Your task to perform on an android device: Search for the ikea billy bookcase Image 0: 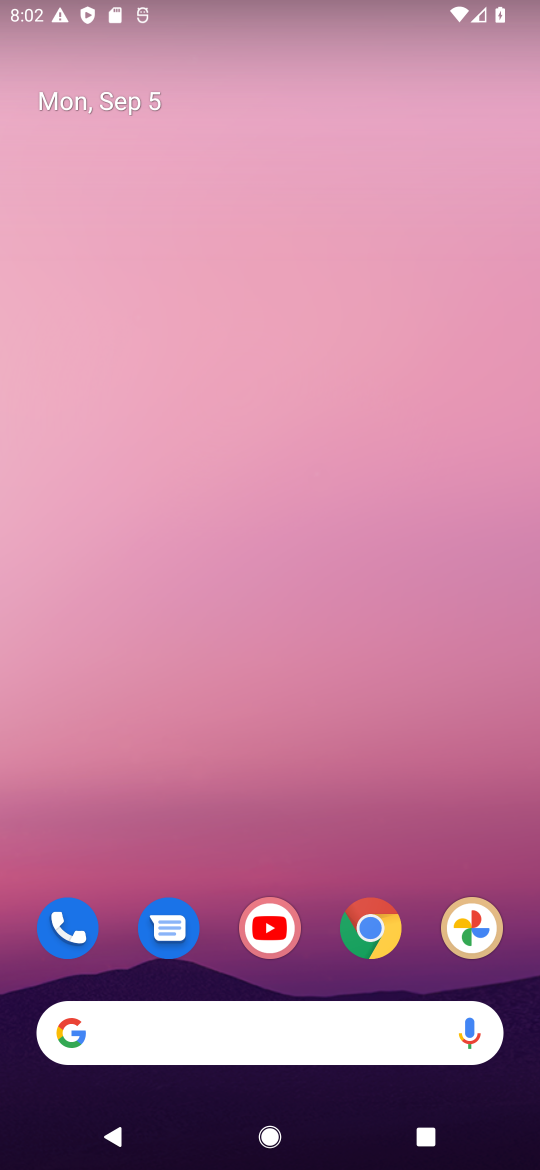
Step 0: click (361, 931)
Your task to perform on an android device: Search for the ikea billy bookcase Image 1: 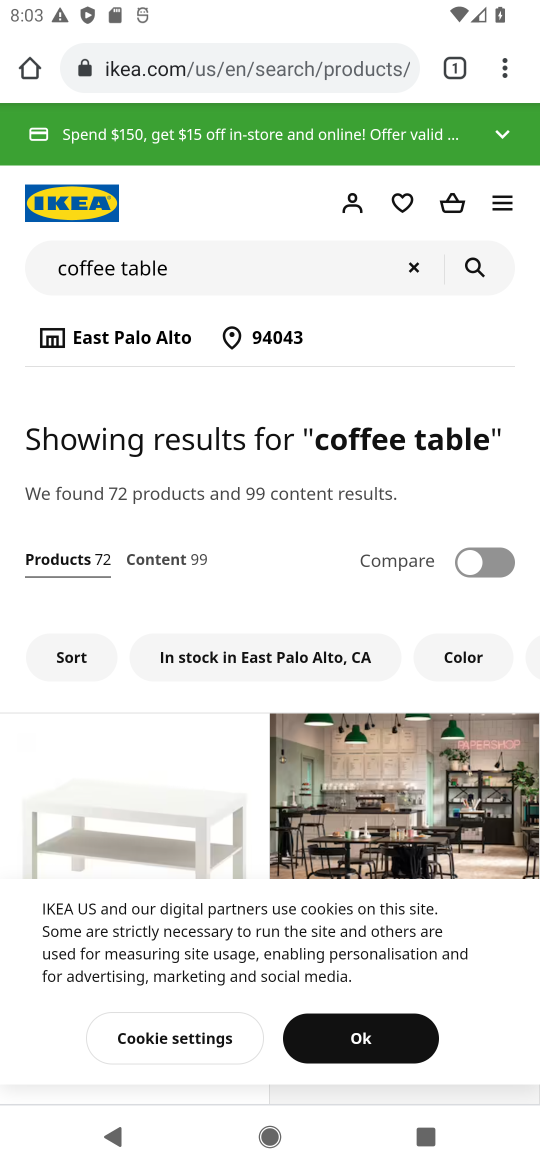
Step 1: click (300, 66)
Your task to perform on an android device: Search for the ikea billy bookcase Image 2: 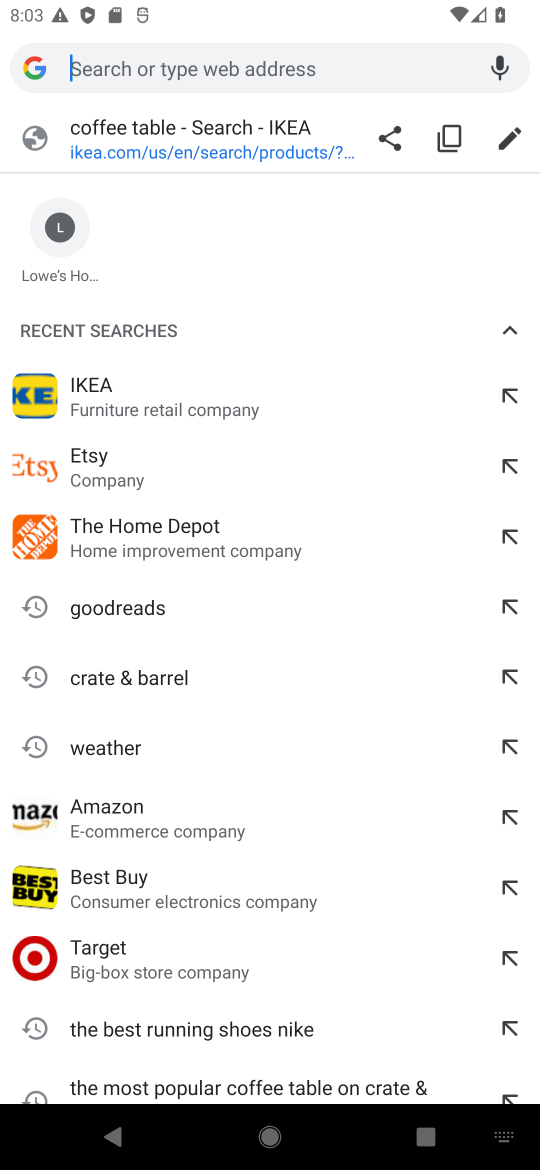
Step 2: type "ikea"
Your task to perform on an android device: Search for the ikea billy bookcase Image 3: 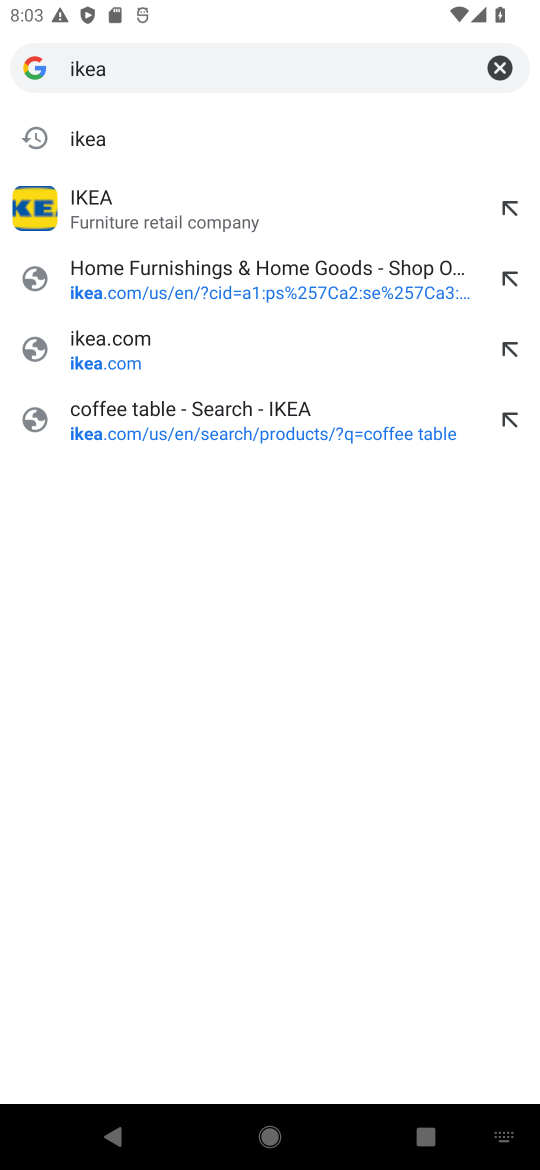
Step 3: click (153, 228)
Your task to perform on an android device: Search for the ikea billy bookcase Image 4: 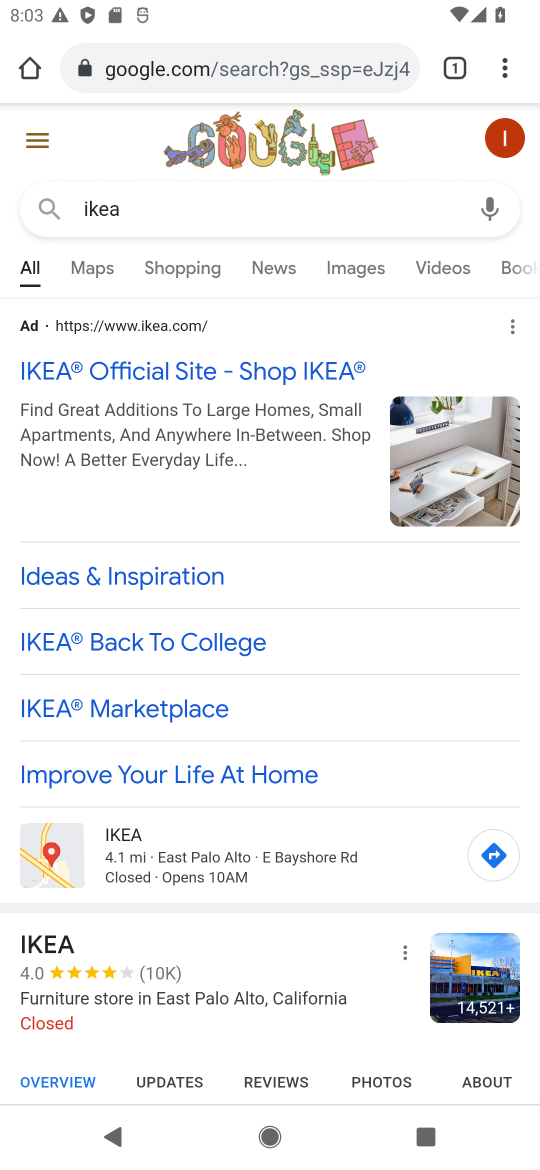
Step 4: click (159, 370)
Your task to perform on an android device: Search for the ikea billy bookcase Image 5: 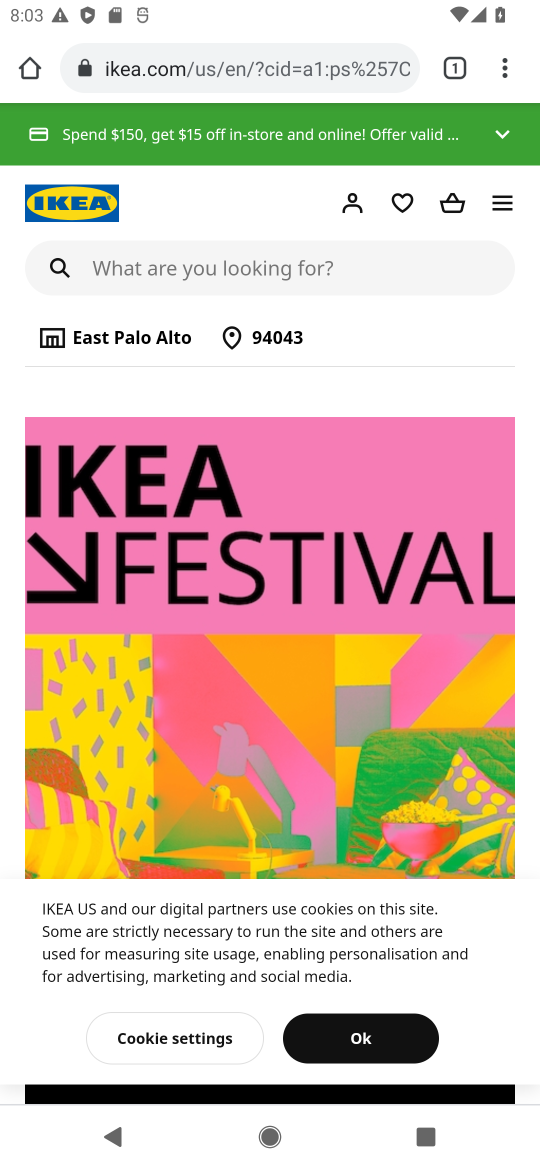
Step 5: click (318, 274)
Your task to perform on an android device: Search for the ikea billy bookcase Image 6: 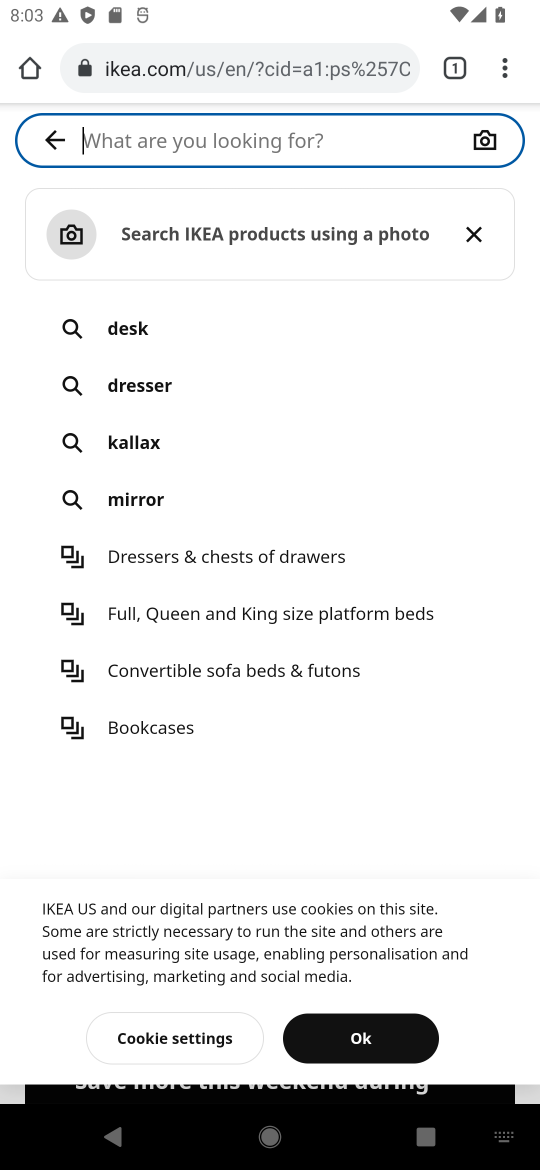
Step 6: type "billy bookcase"
Your task to perform on an android device: Search for the ikea billy bookcase Image 7: 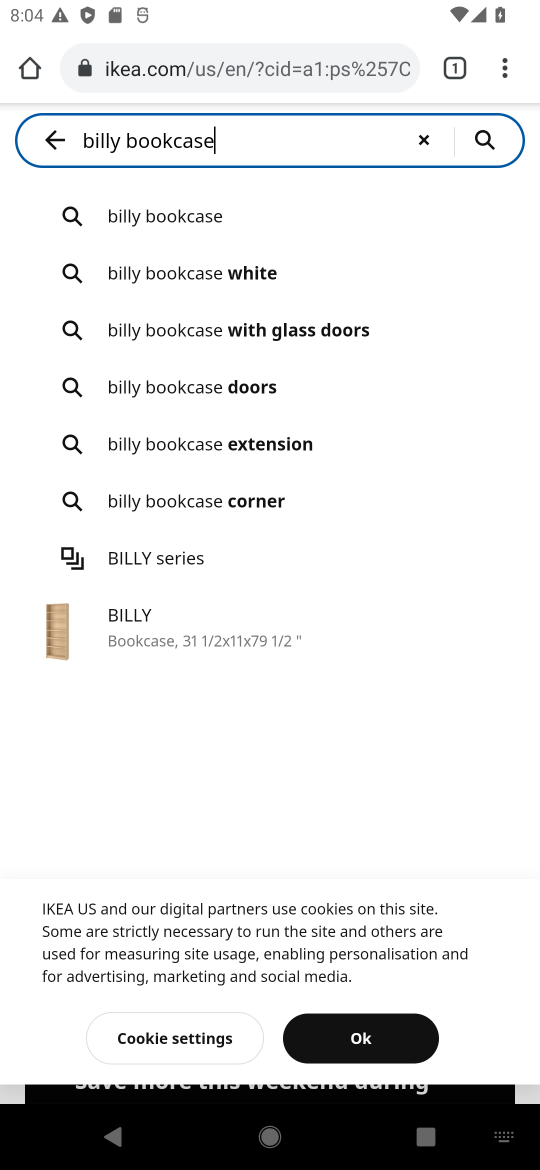
Step 7: click (194, 214)
Your task to perform on an android device: Search for the ikea billy bookcase Image 8: 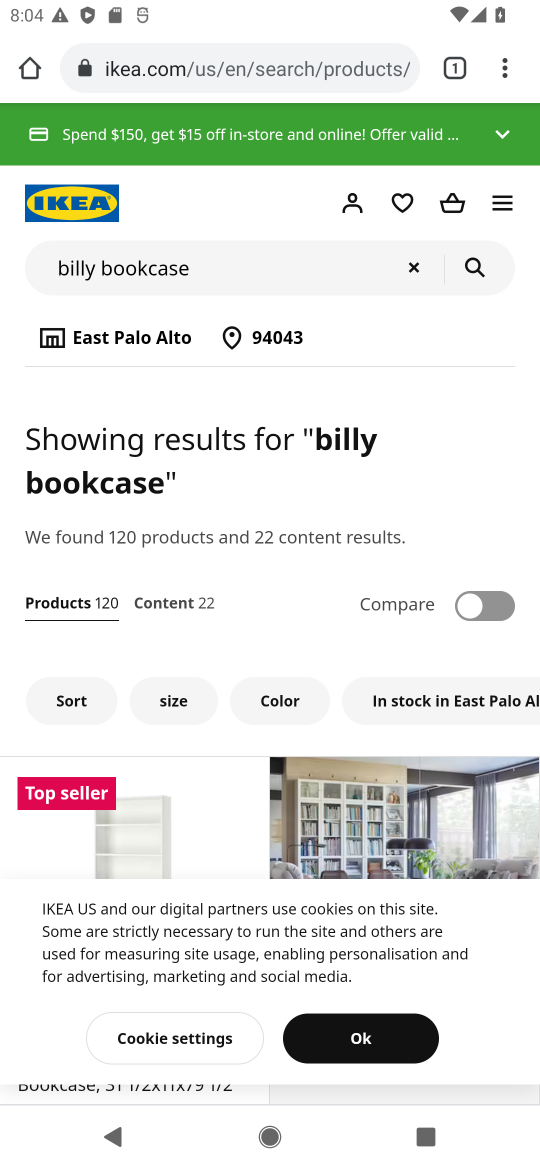
Step 8: click (347, 1043)
Your task to perform on an android device: Search for the ikea billy bookcase Image 9: 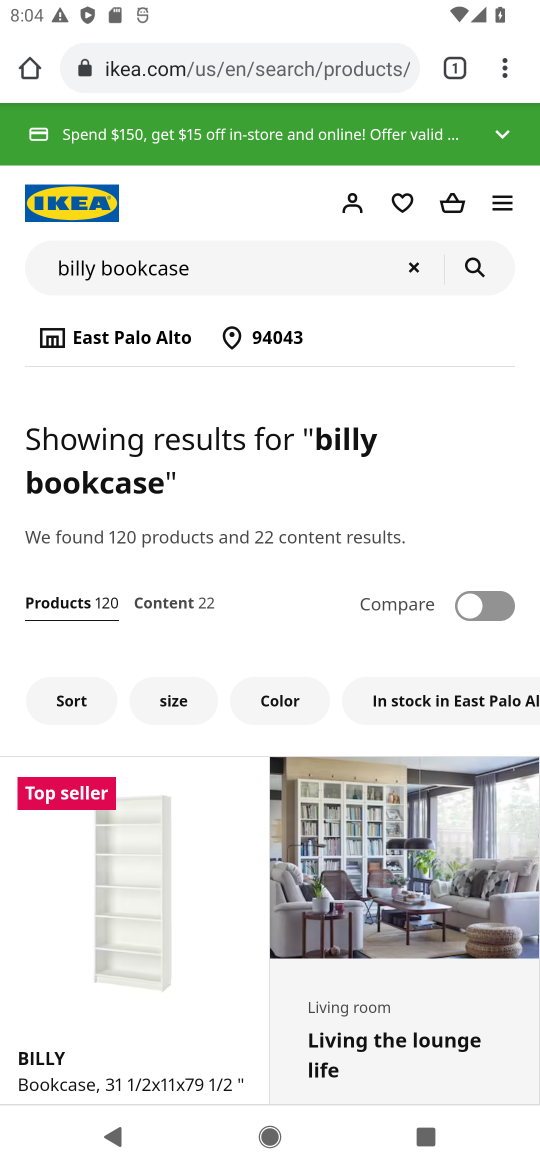
Step 9: task complete